Your task to perform on an android device: Turn on the flashlight Image 0: 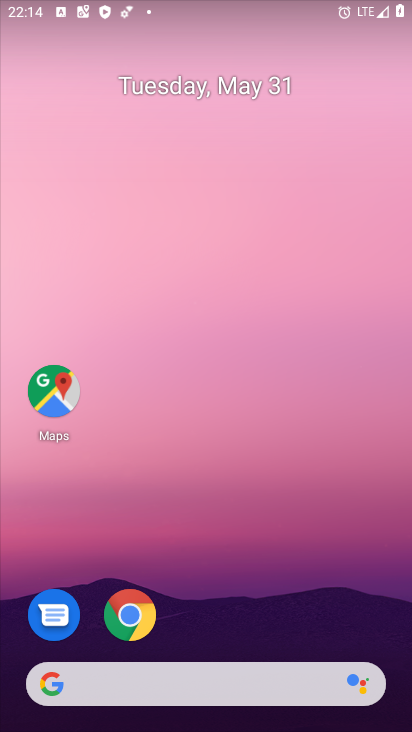
Step 0: drag from (227, 8) to (226, 466)
Your task to perform on an android device: Turn on the flashlight Image 1: 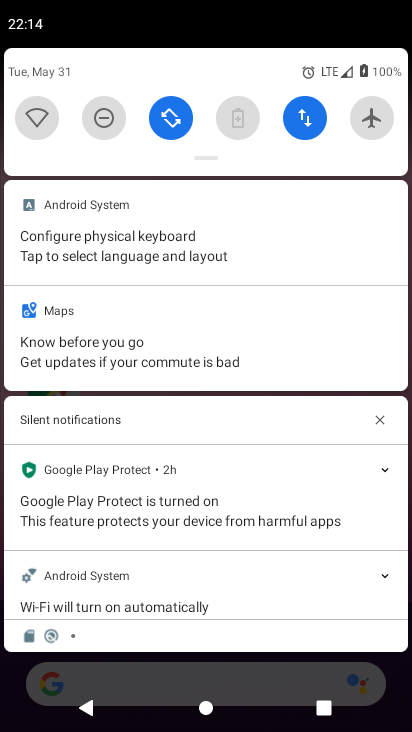
Step 1: drag from (218, 164) to (240, 502)
Your task to perform on an android device: Turn on the flashlight Image 2: 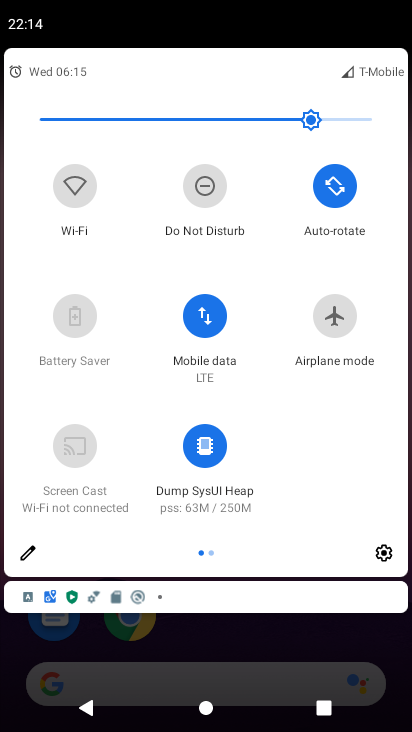
Step 2: click (20, 553)
Your task to perform on an android device: Turn on the flashlight Image 3: 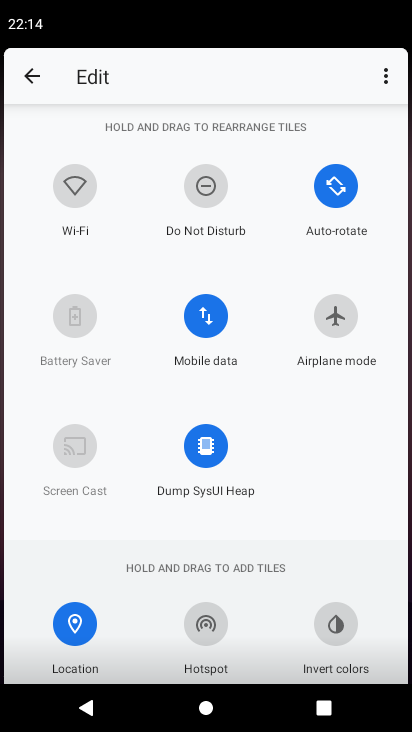
Step 3: task complete